Your task to perform on an android device: open a new tab in the chrome app Image 0: 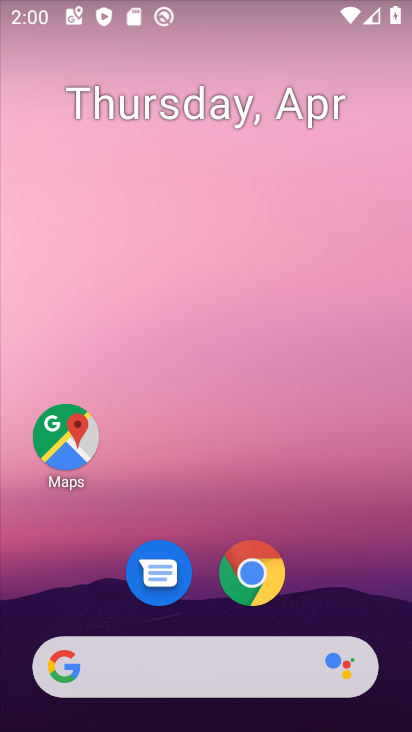
Step 0: drag from (355, 592) to (254, 36)
Your task to perform on an android device: open a new tab in the chrome app Image 1: 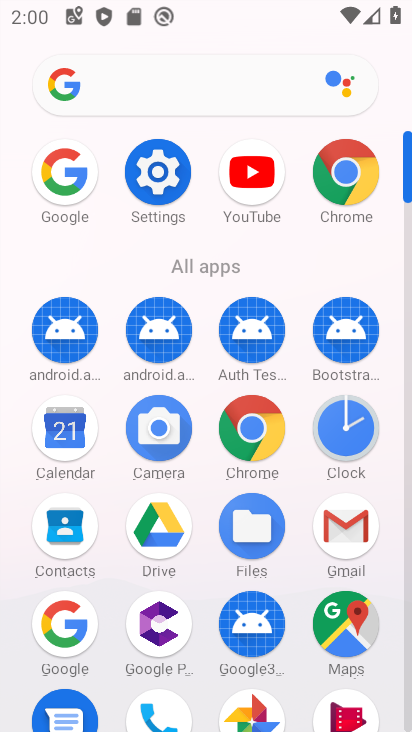
Step 1: click (339, 193)
Your task to perform on an android device: open a new tab in the chrome app Image 2: 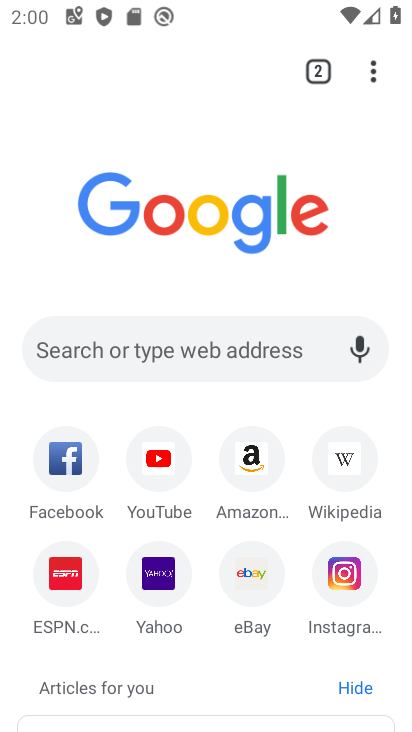
Step 2: click (373, 65)
Your task to perform on an android device: open a new tab in the chrome app Image 3: 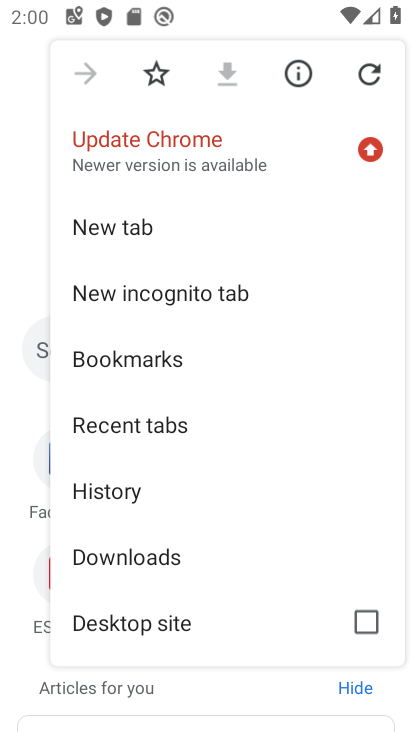
Step 3: click (250, 212)
Your task to perform on an android device: open a new tab in the chrome app Image 4: 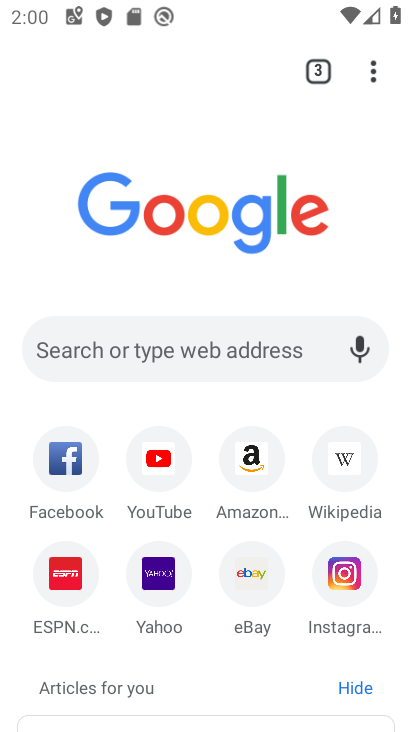
Step 4: task complete